Your task to perform on an android device: star an email in the gmail app Image 0: 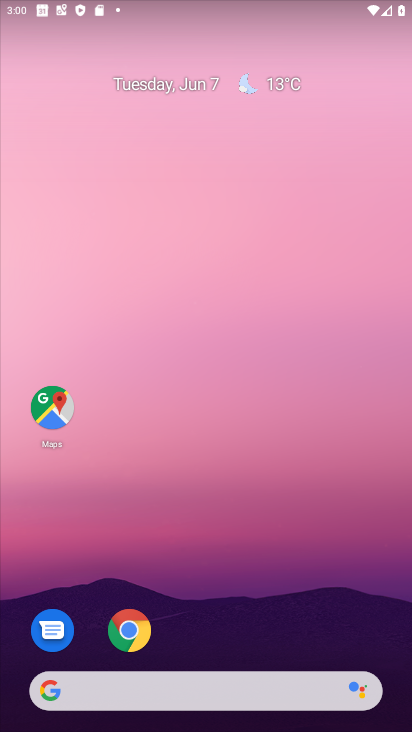
Step 0: drag from (220, 659) to (297, 274)
Your task to perform on an android device: star an email in the gmail app Image 1: 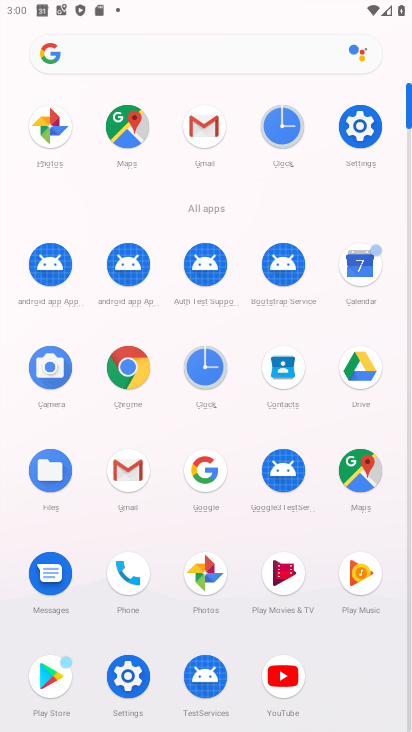
Step 1: click (127, 471)
Your task to perform on an android device: star an email in the gmail app Image 2: 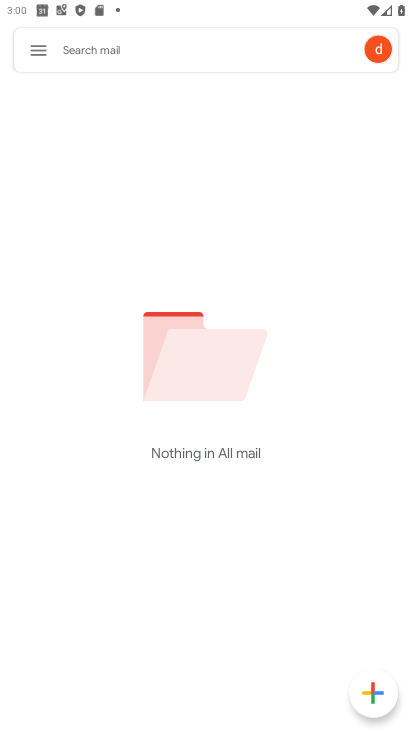
Step 2: click (34, 49)
Your task to perform on an android device: star an email in the gmail app Image 3: 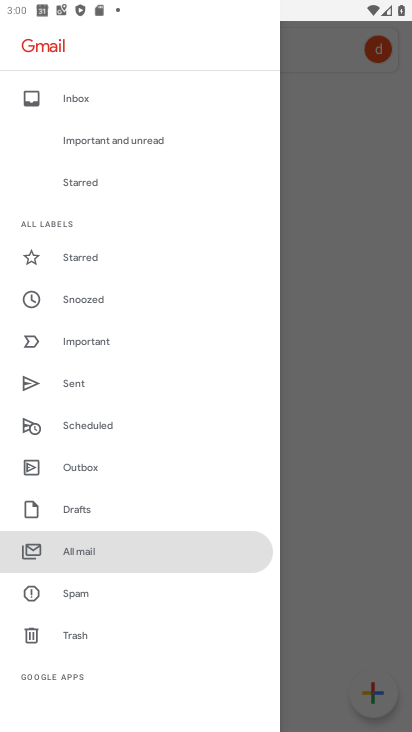
Step 3: click (184, 538)
Your task to perform on an android device: star an email in the gmail app Image 4: 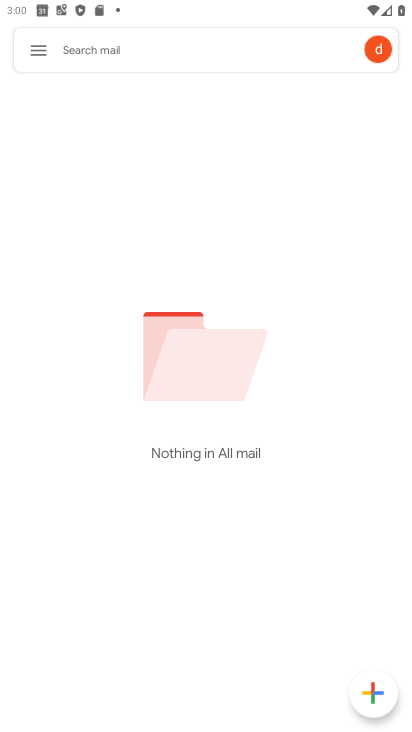
Step 4: task complete